Your task to perform on an android device: open app "Microsoft Authenticator" (install if not already installed), go to login, and select forgot password Image 0: 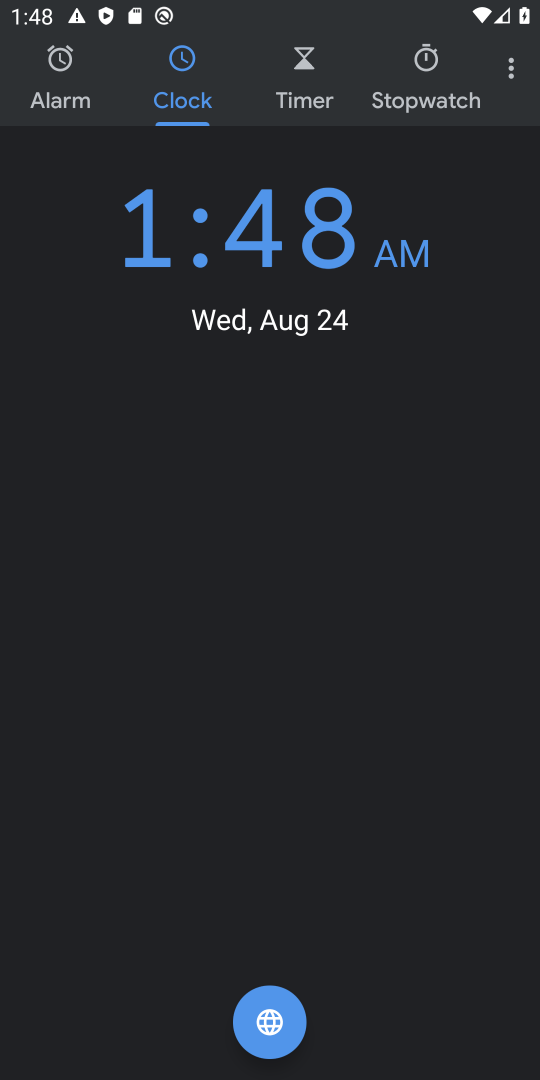
Step 0: press back button
Your task to perform on an android device: open app "Microsoft Authenticator" (install if not already installed), go to login, and select forgot password Image 1: 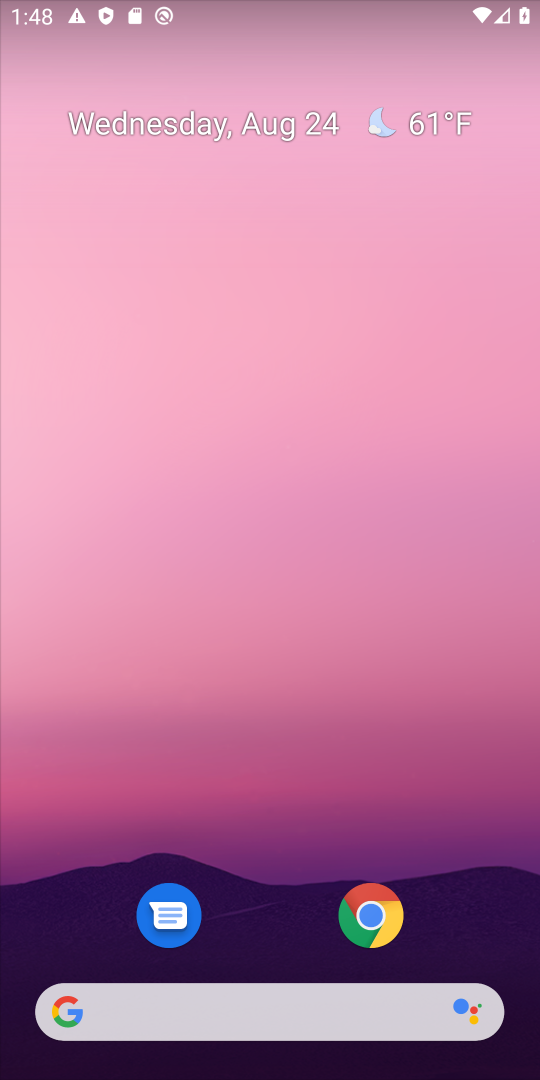
Step 1: drag from (245, 746) to (250, 51)
Your task to perform on an android device: open app "Microsoft Authenticator" (install if not already installed), go to login, and select forgot password Image 2: 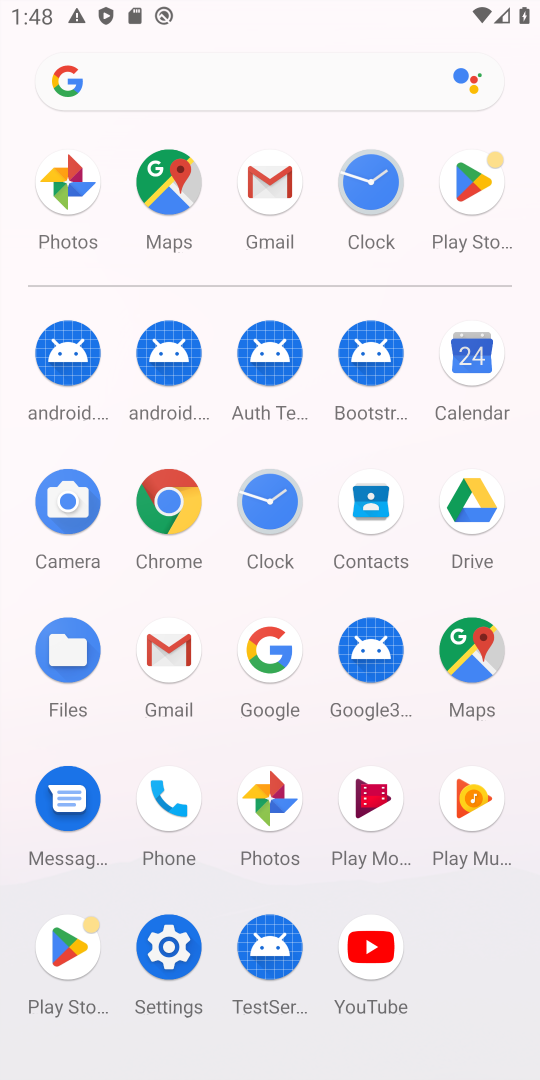
Step 2: click (465, 174)
Your task to perform on an android device: open app "Microsoft Authenticator" (install if not already installed), go to login, and select forgot password Image 3: 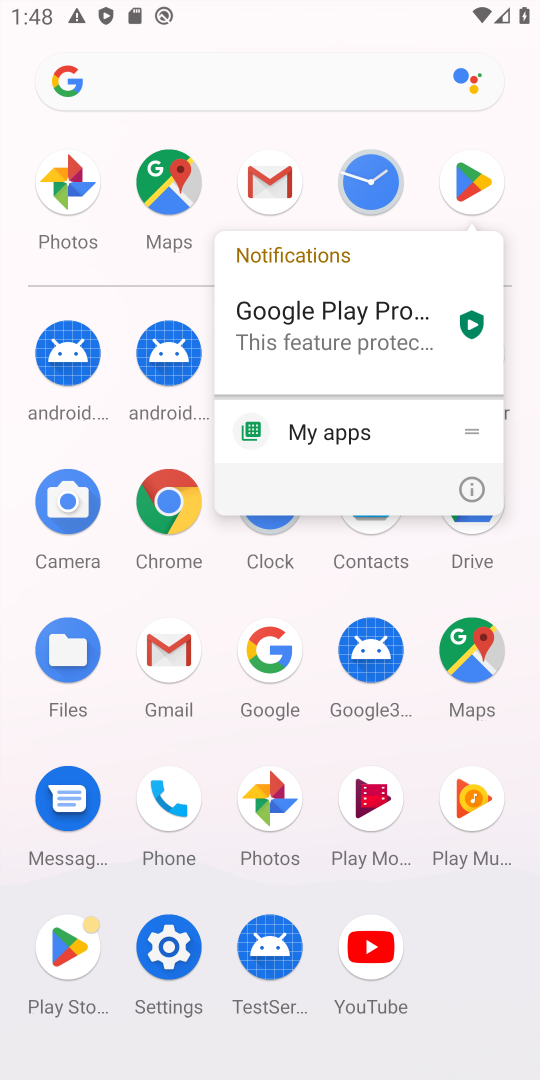
Step 3: click (446, 185)
Your task to perform on an android device: open app "Microsoft Authenticator" (install if not already installed), go to login, and select forgot password Image 4: 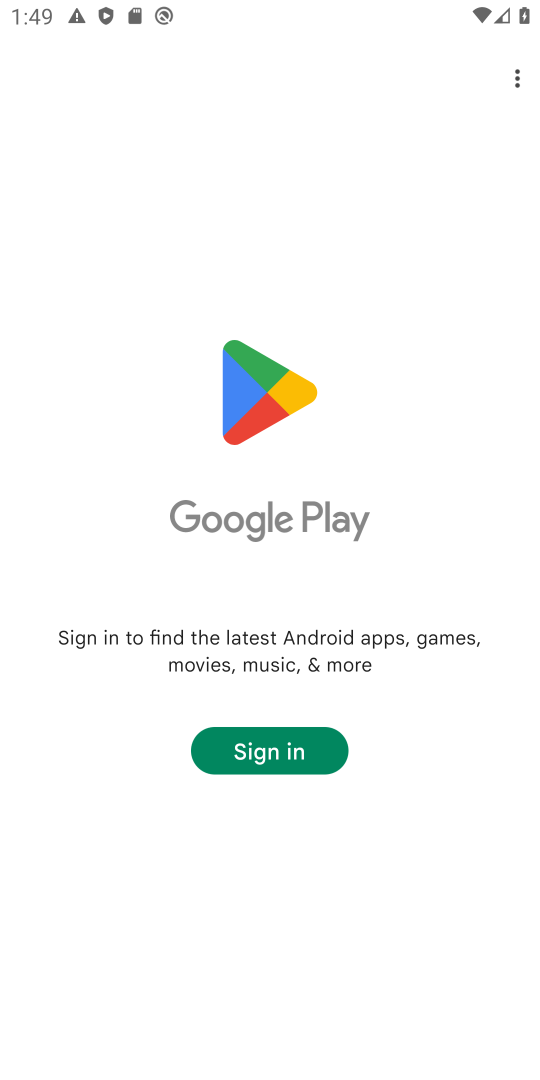
Step 4: task complete